Your task to perform on an android device: Open Youtube and go to "Your channel" Image 0: 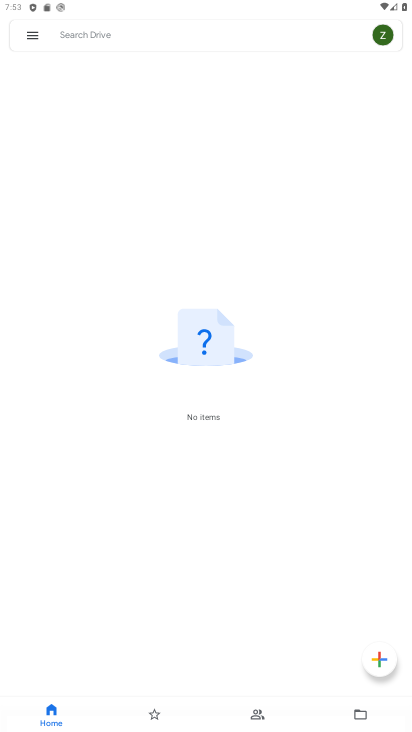
Step 0: press home button
Your task to perform on an android device: Open Youtube and go to "Your channel" Image 1: 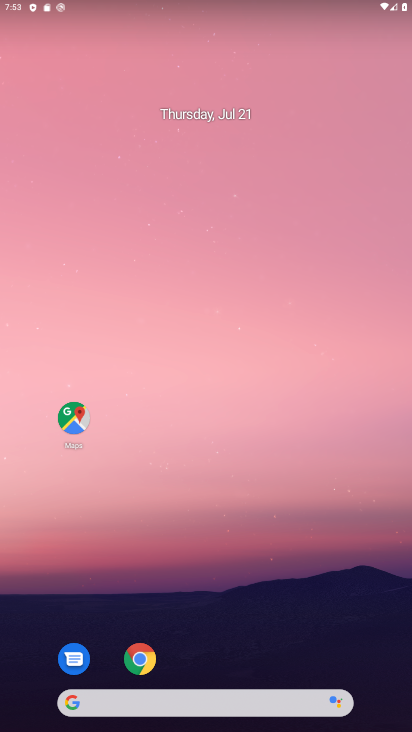
Step 1: drag from (240, 649) to (148, 216)
Your task to perform on an android device: Open Youtube and go to "Your channel" Image 2: 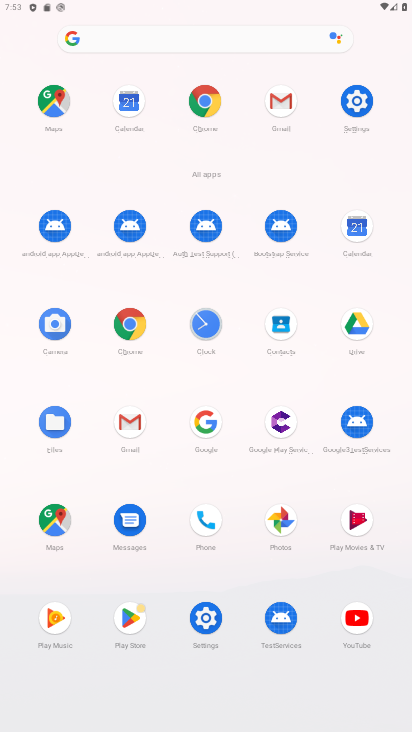
Step 2: click (362, 622)
Your task to perform on an android device: Open Youtube and go to "Your channel" Image 3: 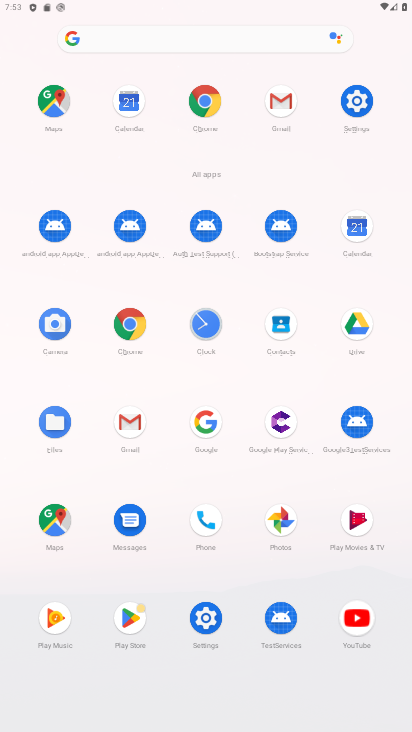
Step 3: click (362, 622)
Your task to perform on an android device: Open Youtube and go to "Your channel" Image 4: 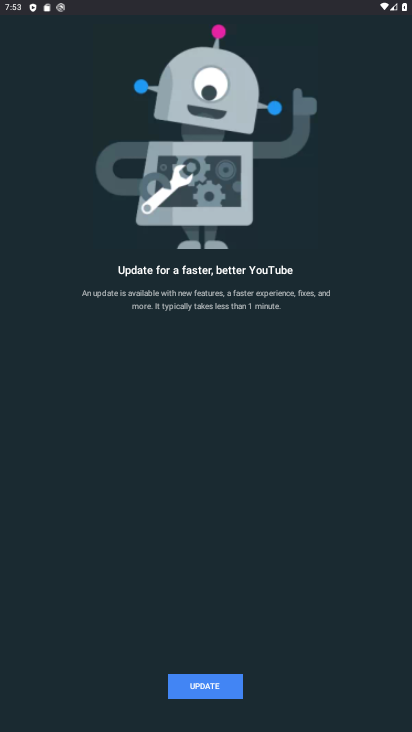
Step 4: click (190, 685)
Your task to perform on an android device: Open Youtube and go to "Your channel" Image 5: 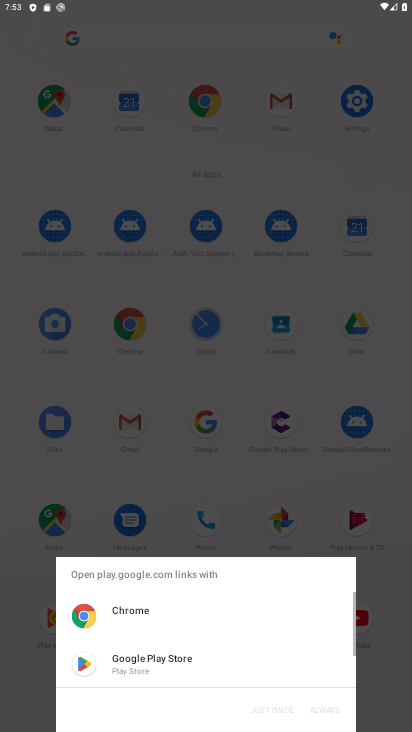
Step 5: click (198, 676)
Your task to perform on an android device: Open Youtube and go to "Your channel" Image 6: 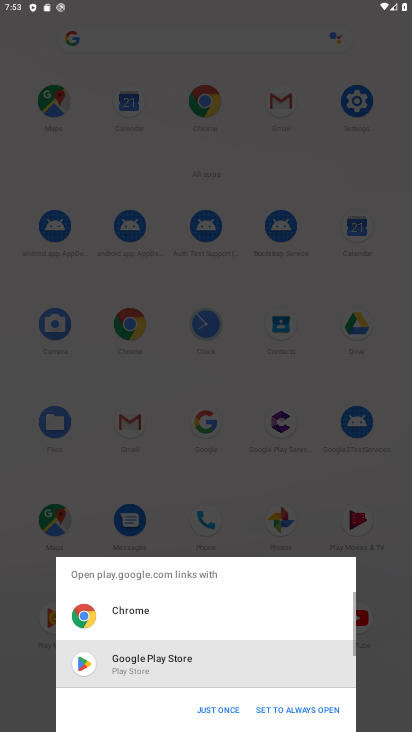
Step 6: click (220, 715)
Your task to perform on an android device: Open Youtube and go to "Your channel" Image 7: 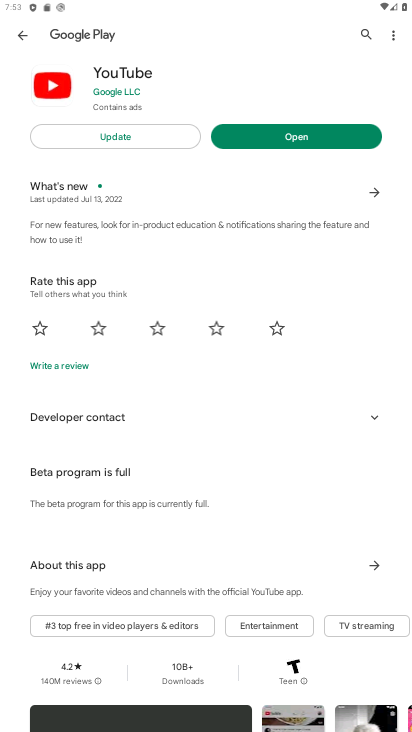
Step 7: click (111, 133)
Your task to perform on an android device: Open Youtube and go to "Your channel" Image 8: 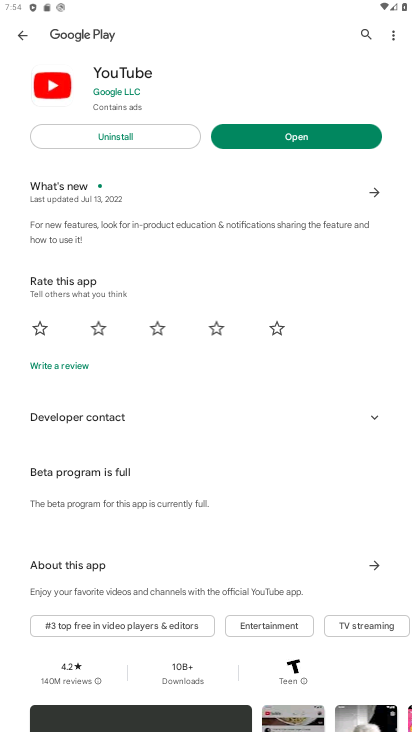
Step 8: click (236, 137)
Your task to perform on an android device: Open Youtube and go to "Your channel" Image 9: 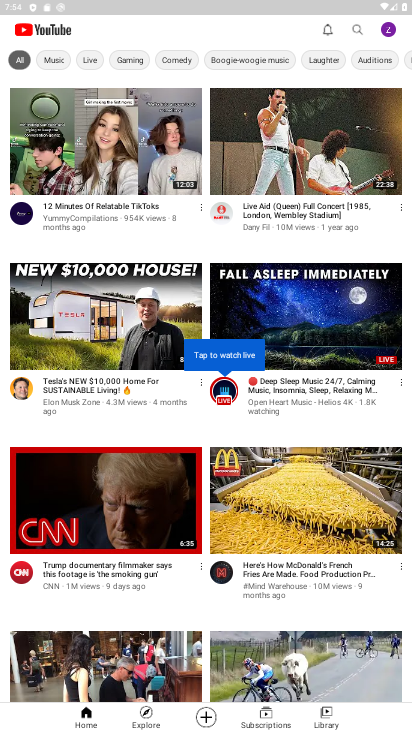
Step 9: click (390, 32)
Your task to perform on an android device: Open Youtube and go to "Your channel" Image 10: 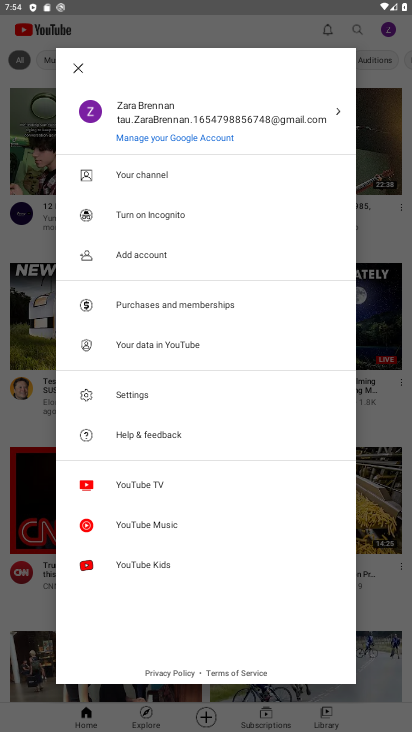
Step 10: click (187, 186)
Your task to perform on an android device: Open Youtube and go to "Your channel" Image 11: 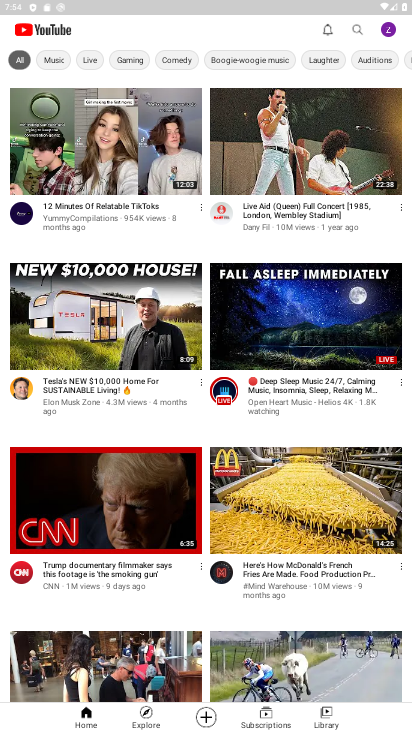
Step 11: click (387, 26)
Your task to perform on an android device: Open Youtube and go to "Your channel" Image 12: 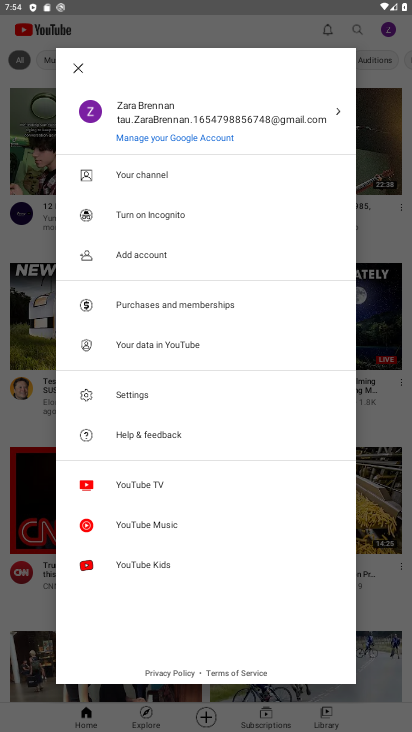
Step 12: click (158, 188)
Your task to perform on an android device: Open Youtube and go to "Your channel" Image 13: 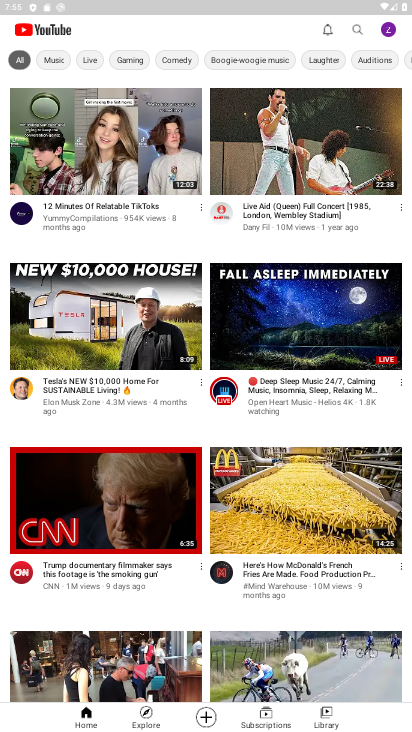
Step 13: task complete